Your task to perform on an android device: change notification settings in the gmail app Image 0: 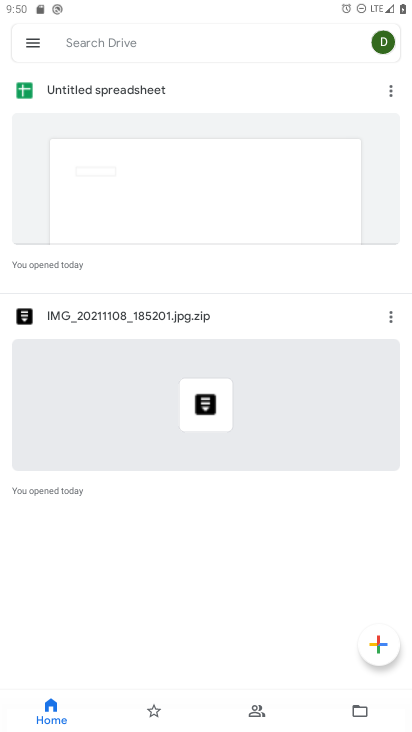
Step 0: press home button
Your task to perform on an android device: change notification settings in the gmail app Image 1: 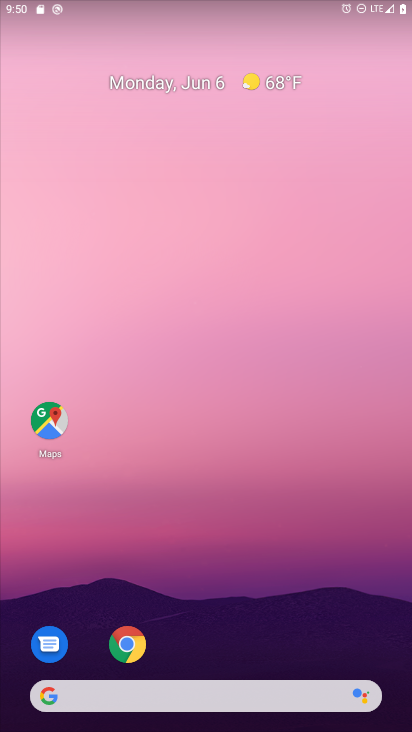
Step 1: drag from (245, 700) to (223, 140)
Your task to perform on an android device: change notification settings in the gmail app Image 2: 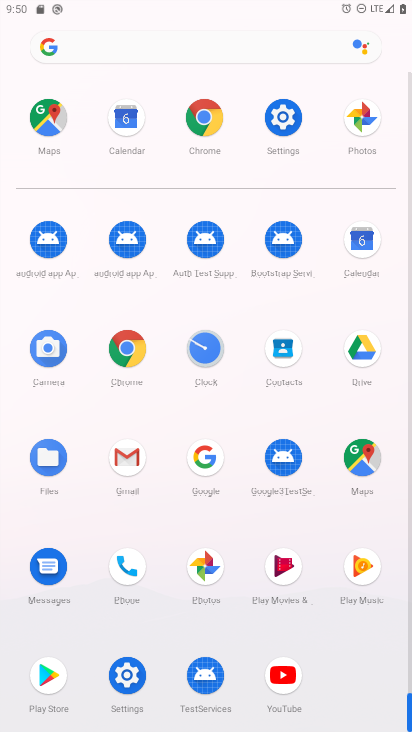
Step 2: click (132, 471)
Your task to perform on an android device: change notification settings in the gmail app Image 3: 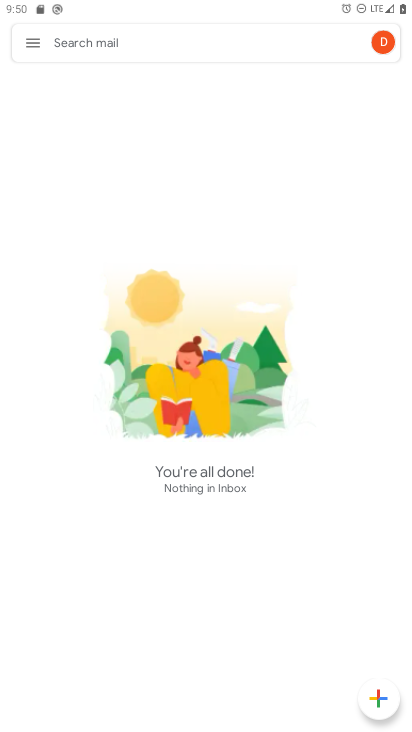
Step 3: click (35, 55)
Your task to perform on an android device: change notification settings in the gmail app Image 4: 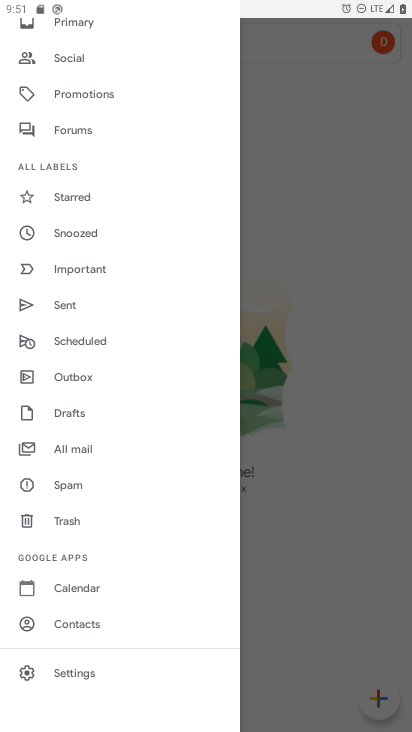
Step 4: click (95, 677)
Your task to perform on an android device: change notification settings in the gmail app Image 5: 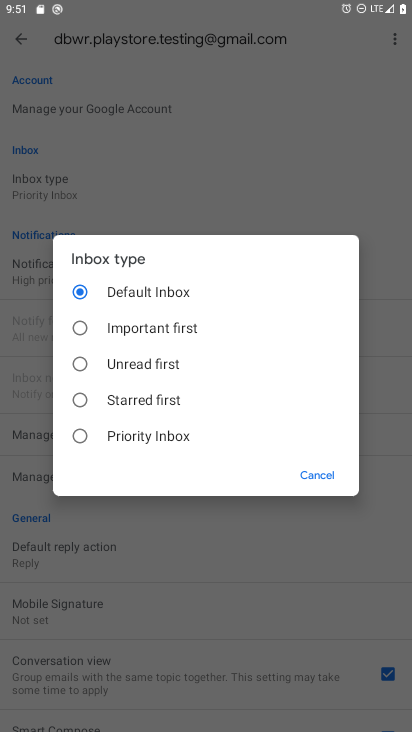
Step 5: click (318, 461)
Your task to perform on an android device: change notification settings in the gmail app Image 6: 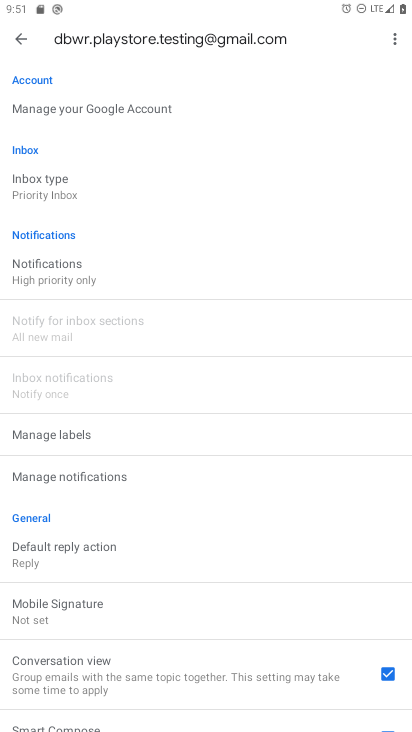
Step 6: click (66, 272)
Your task to perform on an android device: change notification settings in the gmail app Image 7: 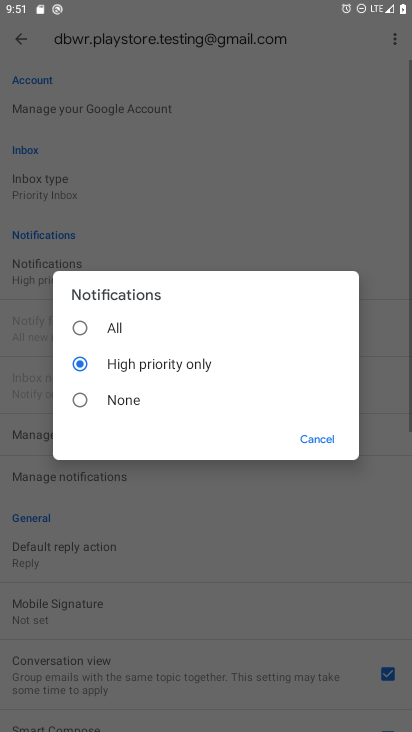
Step 7: click (122, 374)
Your task to perform on an android device: change notification settings in the gmail app Image 8: 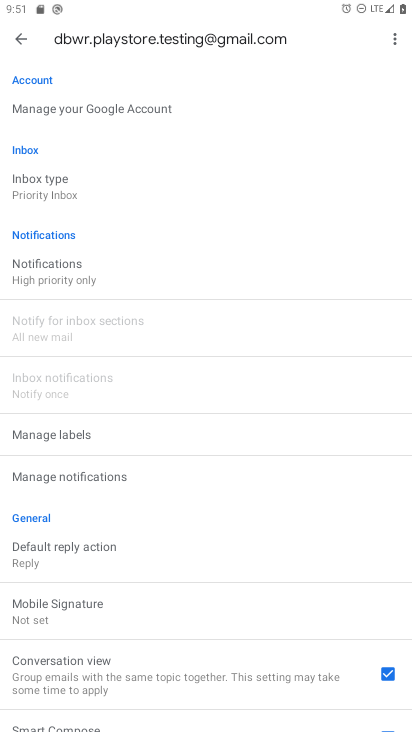
Step 8: click (69, 272)
Your task to perform on an android device: change notification settings in the gmail app Image 9: 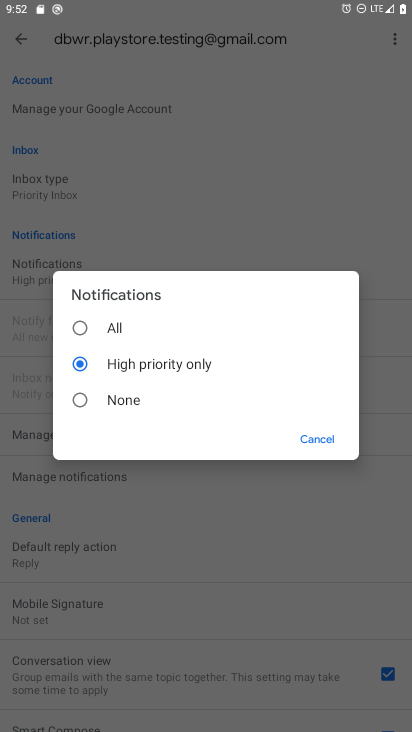
Step 9: task complete